Your task to perform on an android device: Go to notification settings Image 0: 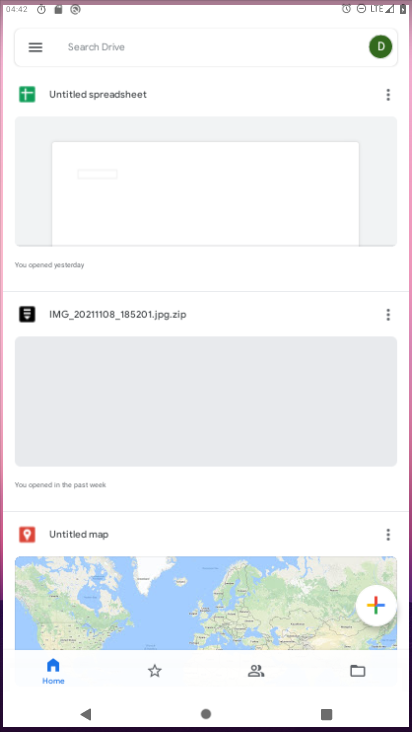
Step 0: drag from (298, 608) to (257, 145)
Your task to perform on an android device: Go to notification settings Image 1: 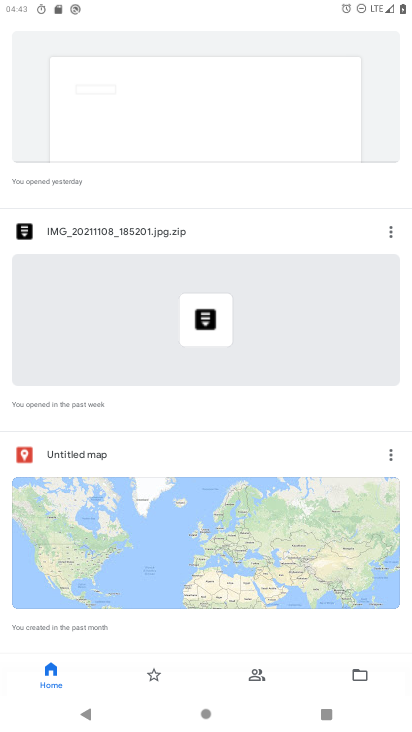
Step 1: press home button
Your task to perform on an android device: Go to notification settings Image 2: 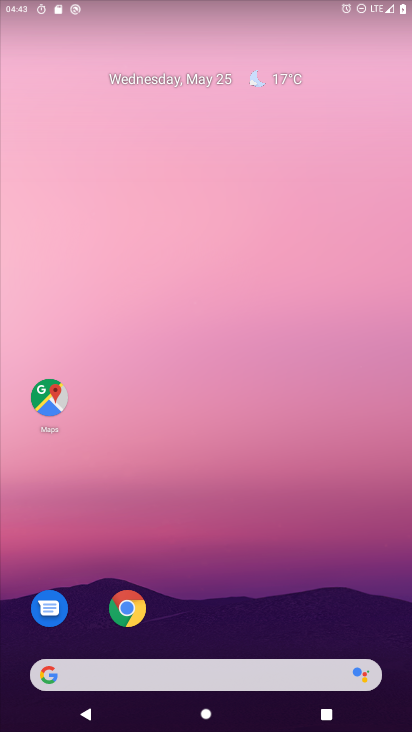
Step 2: drag from (208, 589) to (212, 193)
Your task to perform on an android device: Go to notification settings Image 3: 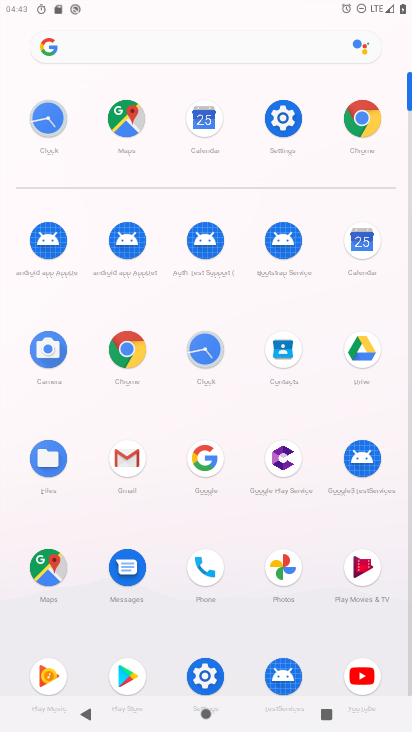
Step 3: click (290, 124)
Your task to perform on an android device: Go to notification settings Image 4: 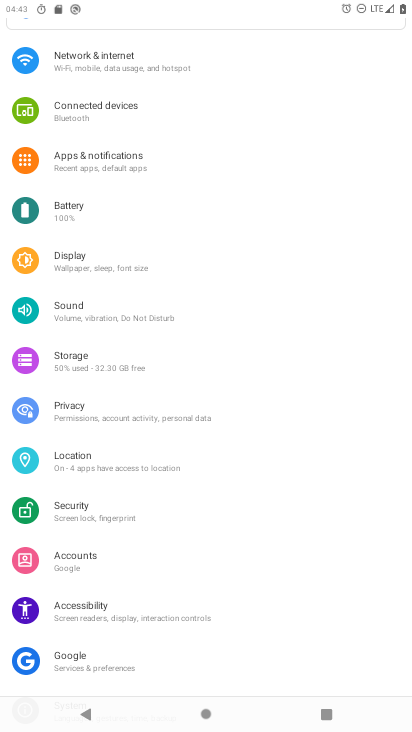
Step 4: click (100, 156)
Your task to perform on an android device: Go to notification settings Image 5: 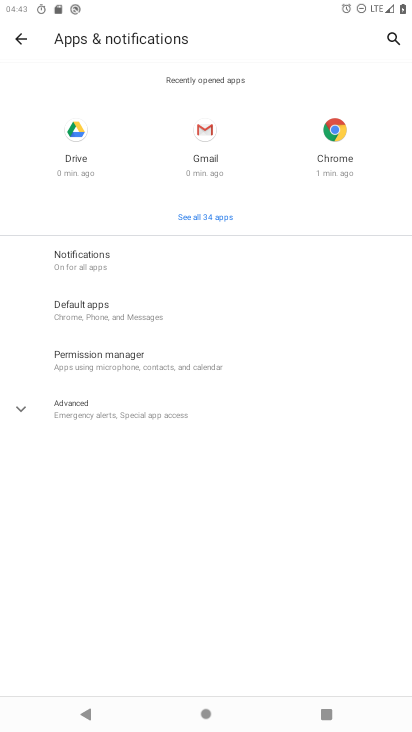
Step 5: click (102, 266)
Your task to perform on an android device: Go to notification settings Image 6: 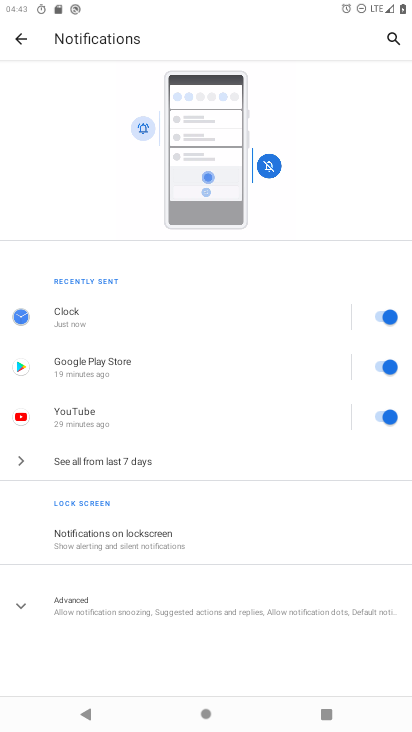
Step 6: task complete